Your task to perform on an android device: Go to Wikipedia Image 0: 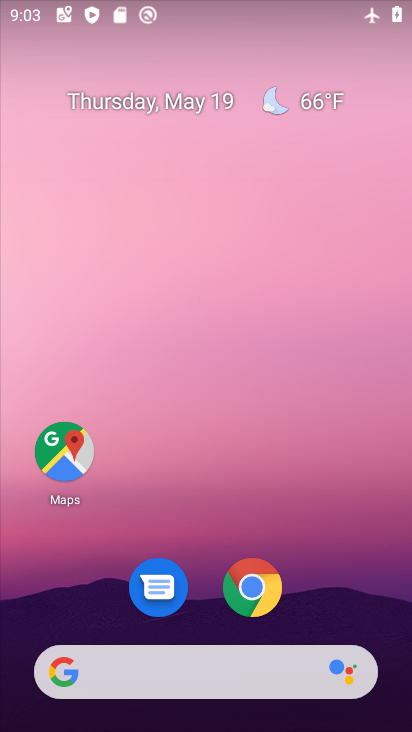
Step 0: press home button
Your task to perform on an android device: Go to Wikipedia Image 1: 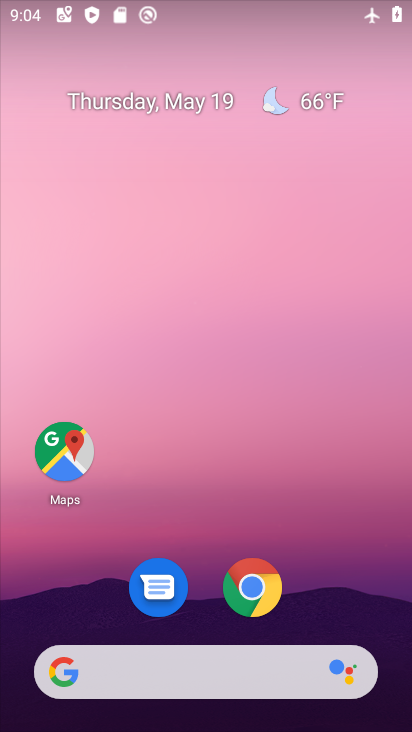
Step 1: drag from (240, 705) to (243, 335)
Your task to perform on an android device: Go to Wikipedia Image 2: 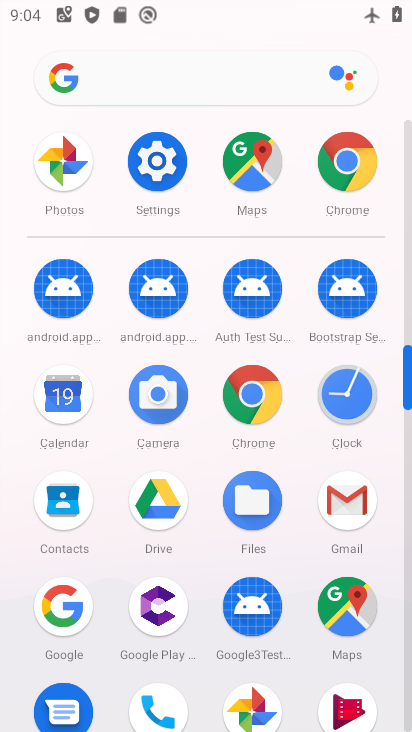
Step 2: click (340, 184)
Your task to perform on an android device: Go to Wikipedia Image 3: 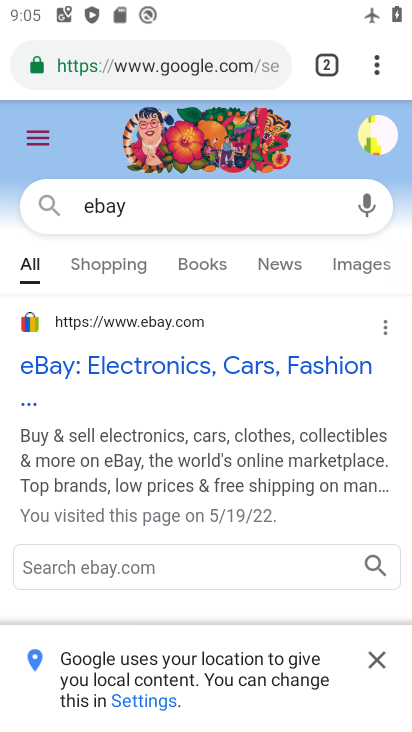
Step 3: click (326, 64)
Your task to perform on an android device: Go to Wikipedia Image 4: 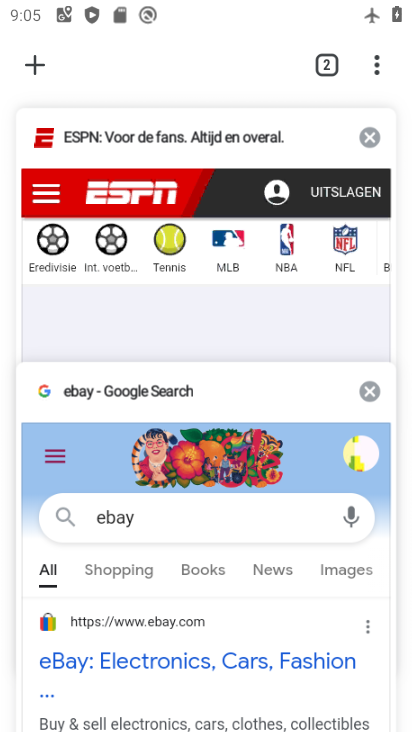
Step 4: click (28, 68)
Your task to perform on an android device: Go to Wikipedia Image 5: 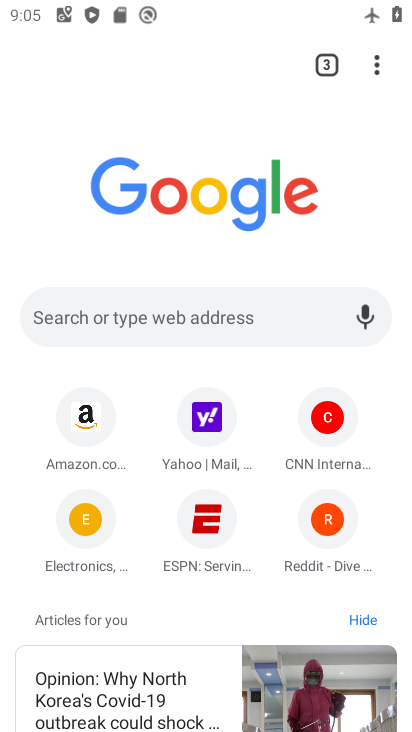
Step 5: click (149, 308)
Your task to perform on an android device: Go to Wikipedia Image 6: 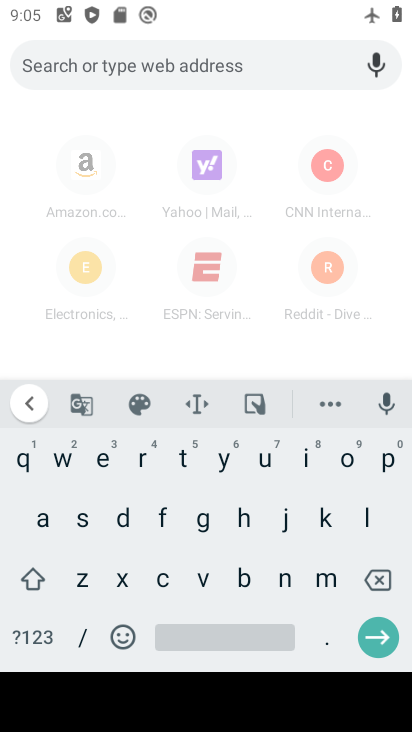
Step 6: click (63, 449)
Your task to perform on an android device: Go to Wikipedia Image 7: 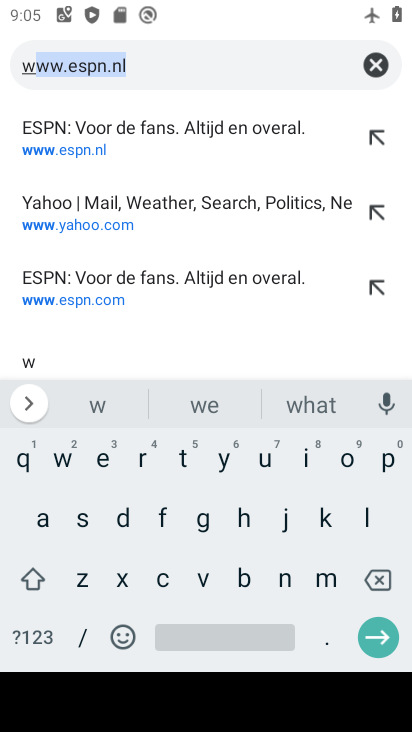
Step 7: click (309, 458)
Your task to perform on an android device: Go to Wikipedia Image 8: 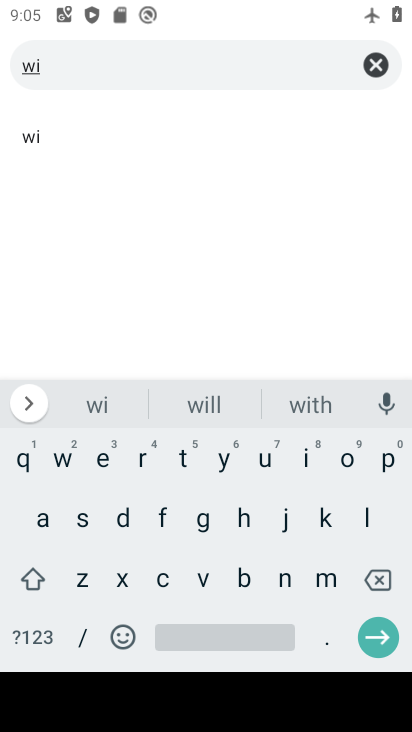
Step 8: click (323, 521)
Your task to perform on an android device: Go to Wikipedia Image 9: 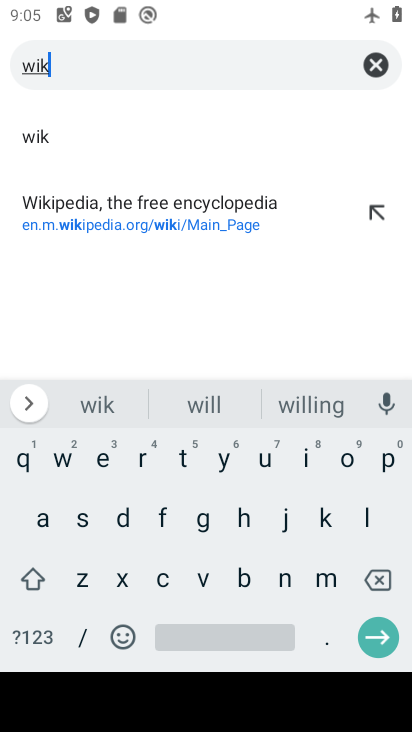
Step 9: click (103, 217)
Your task to perform on an android device: Go to Wikipedia Image 10: 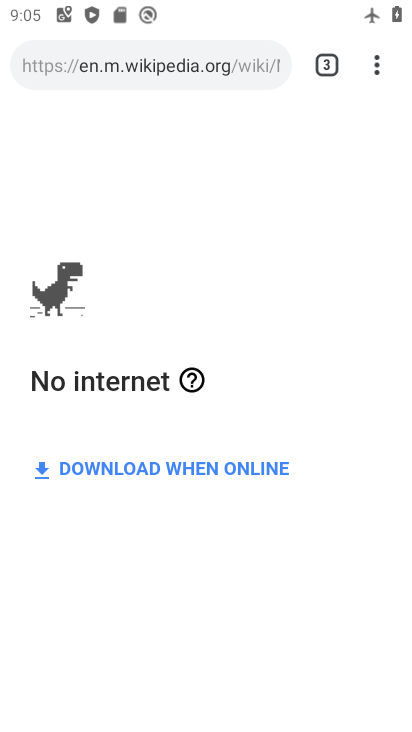
Step 10: press home button
Your task to perform on an android device: Go to Wikipedia Image 11: 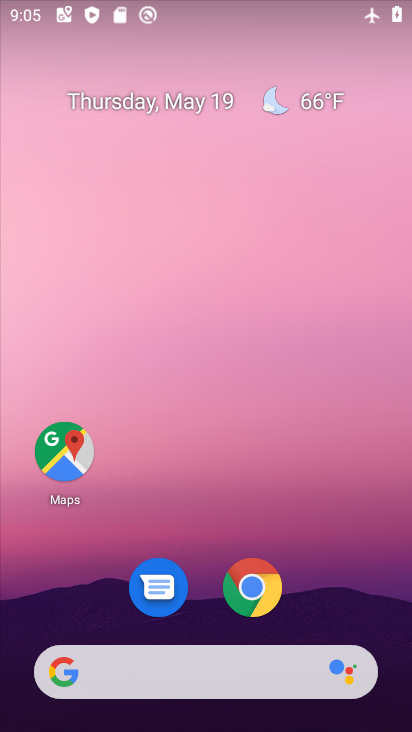
Step 11: drag from (255, 696) to (167, 209)
Your task to perform on an android device: Go to Wikipedia Image 12: 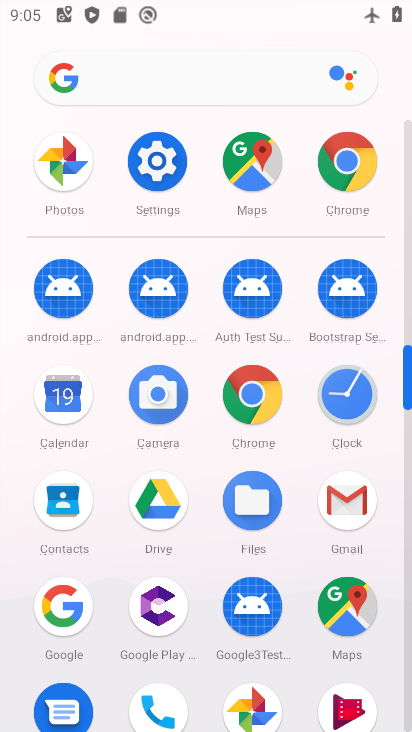
Step 12: click (173, 167)
Your task to perform on an android device: Go to Wikipedia Image 13: 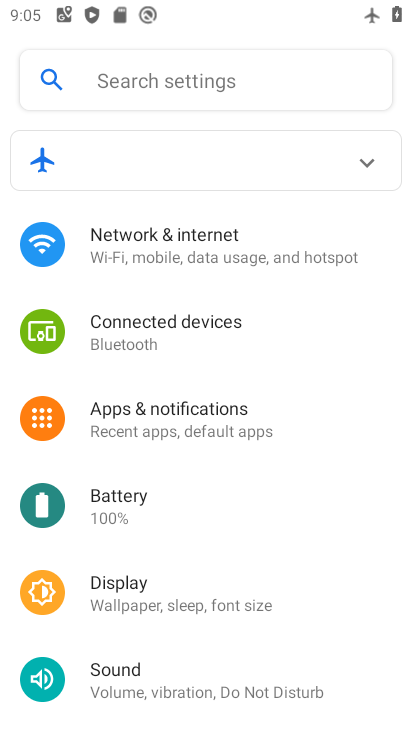
Step 13: click (360, 158)
Your task to perform on an android device: Go to Wikipedia Image 14: 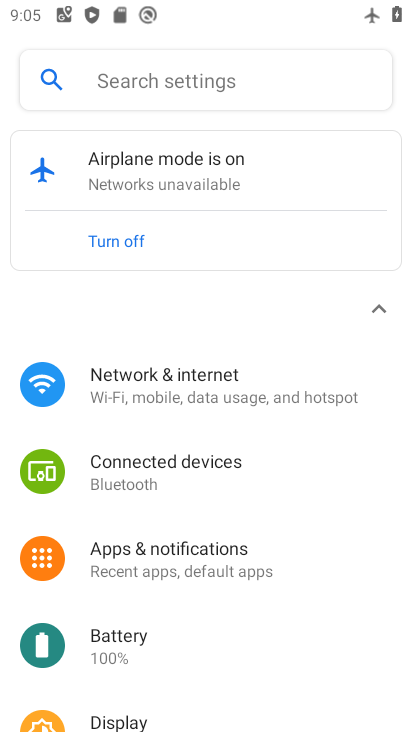
Step 14: click (91, 230)
Your task to perform on an android device: Go to Wikipedia Image 15: 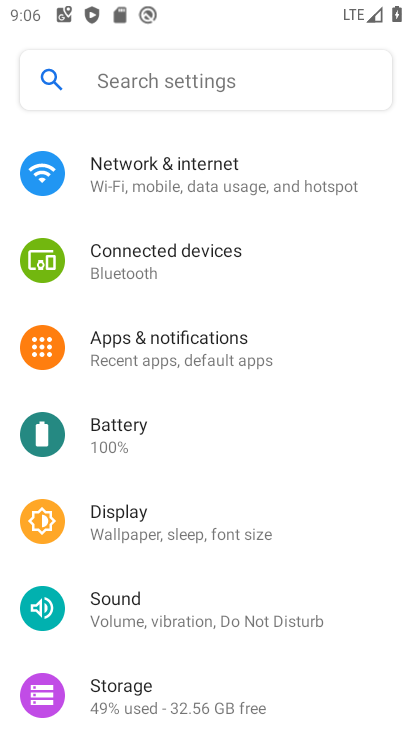
Step 15: press home button
Your task to perform on an android device: Go to Wikipedia Image 16: 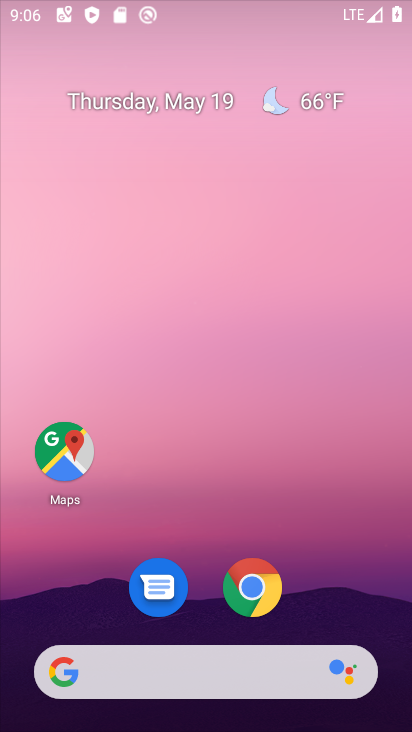
Step 16: drag from (250, 702) to (222, 302)
Your task to perform on an android device: Go to Wikipedia Image 17: 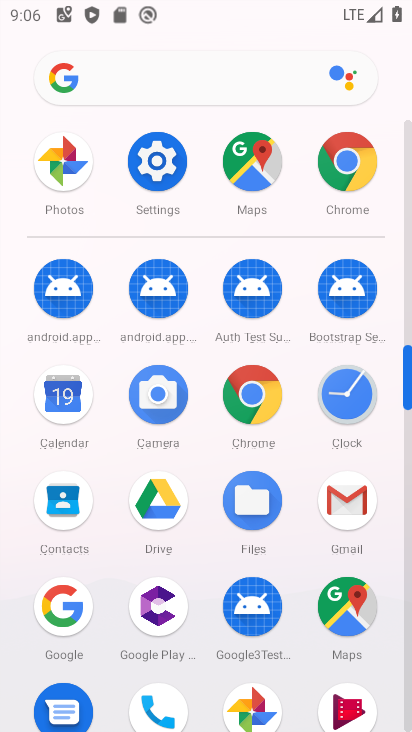
Step 17: click (338, 168)
Your task to perform on an android device: Go to Wikipedia Image 18: 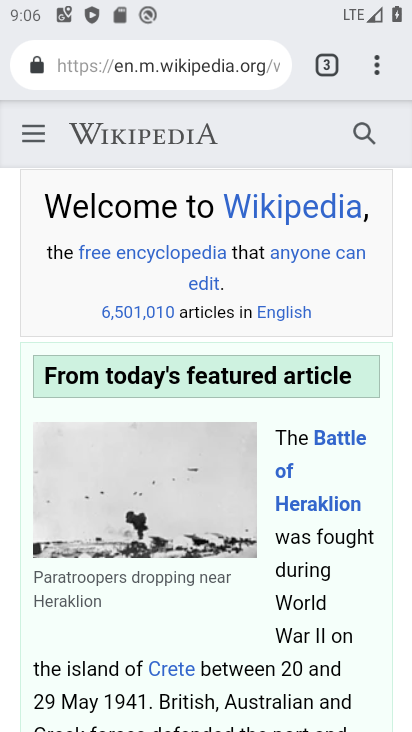
Step 18: task complete